Your task to perform on an android device: turn off javascript in the chrome app Image 0: 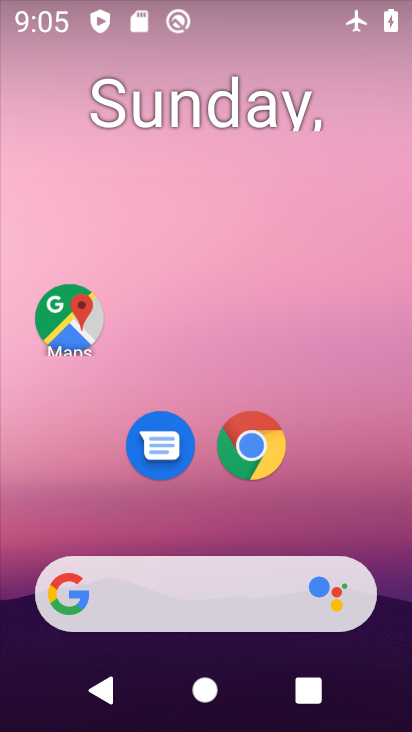
Step 0: click (271, 455)
Your task to perform on an android device: turn off javascript in the chrome app Image 1: 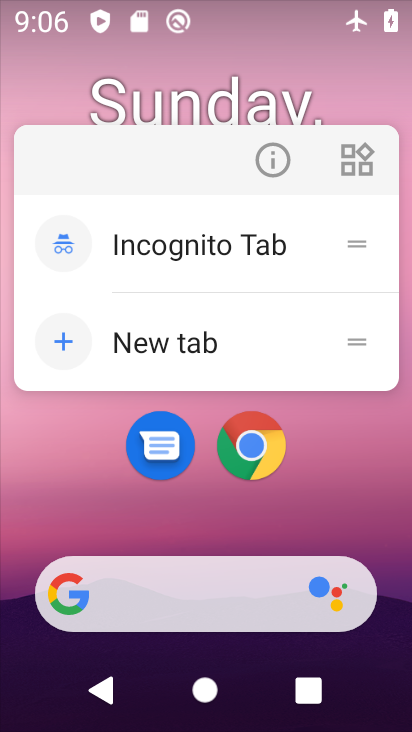
Step 1: click (268, 451)
Your task to perform on an android device: turn off javascript in the chrome app Image 2: 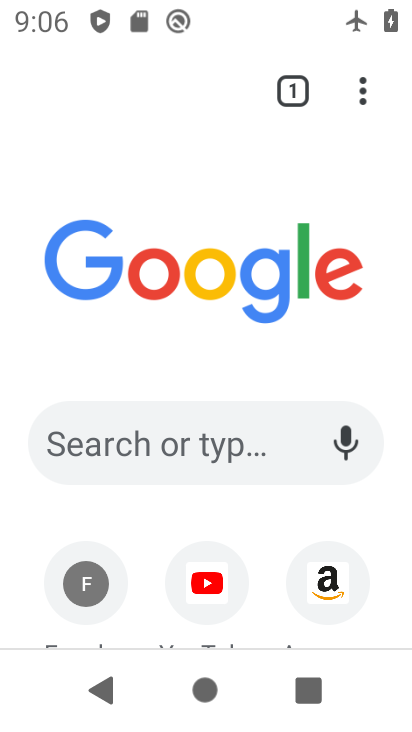
Step 2: drag from (367, 94) to (110, 473)
Your task to perform on an android device: turn off javascript in the chrome app Image 3: 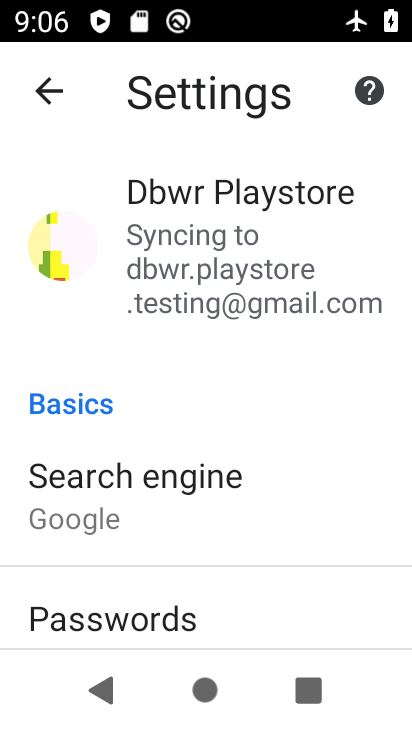
Step 3: drag from (185, 607) to (195, 128)
Your task to perform on an android device: turn off javascript in the chrome app Image 4: 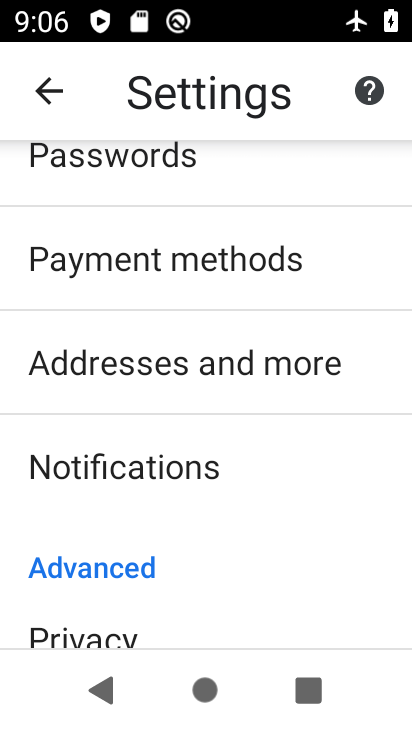
Step 4: drag from (194, 598) to (250, 94)
Your task to perform on an android device: turn off javascript in the chrome app Image 5: 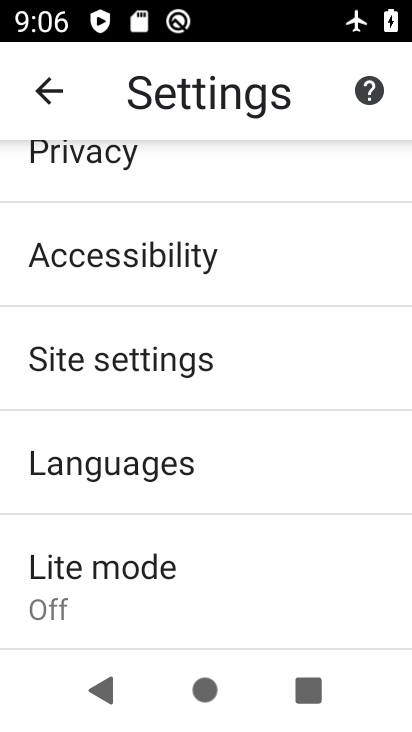
Step 5: click (172, 367)
Your task to perform on an android device: turn off javascript in the chrome app Image 6: 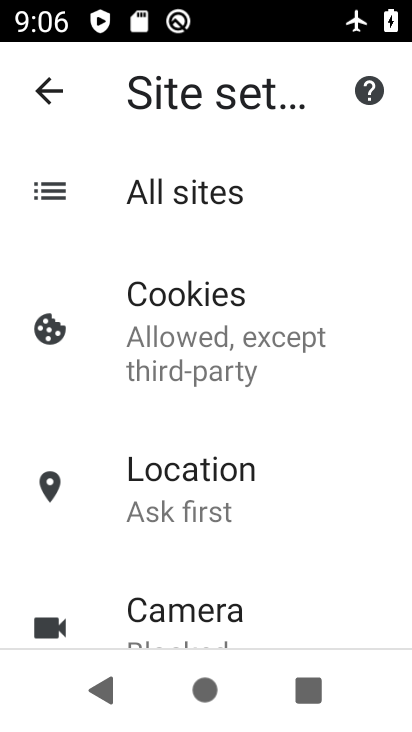
Step 6: drag from (173, 537) to (253, 65)
Your task to perform on an android device: turn off javascript in the chrome app Image 7: 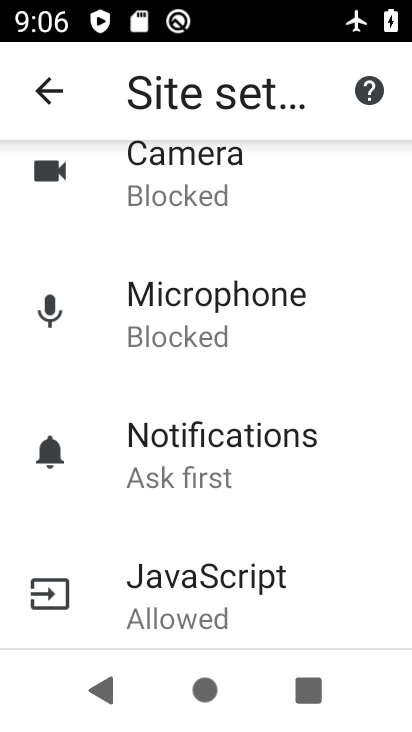
Step 7: click (178, 580)
Your task to perform on an android device: turn off javascript in the chrome app Image 8: 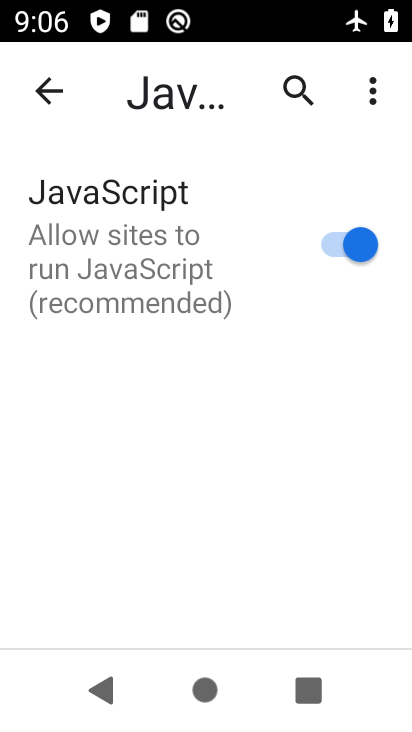
Step 8: click (351, 263)
Your task to perform on an android device: turn off javascript in the chrome app Image 9: 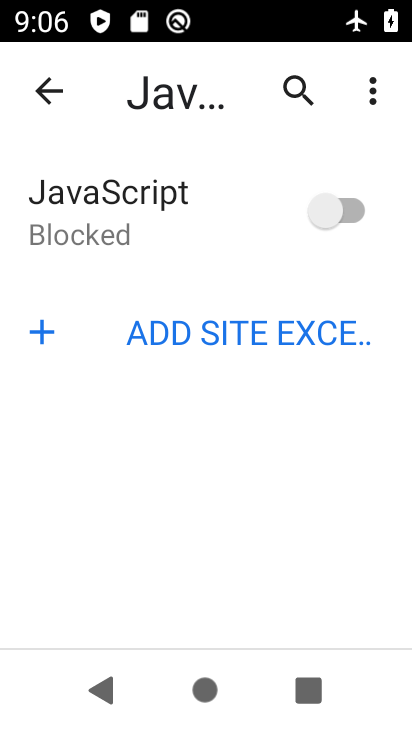
Step 9: task complete